Your task to perform on an android device: check android version Image 0: 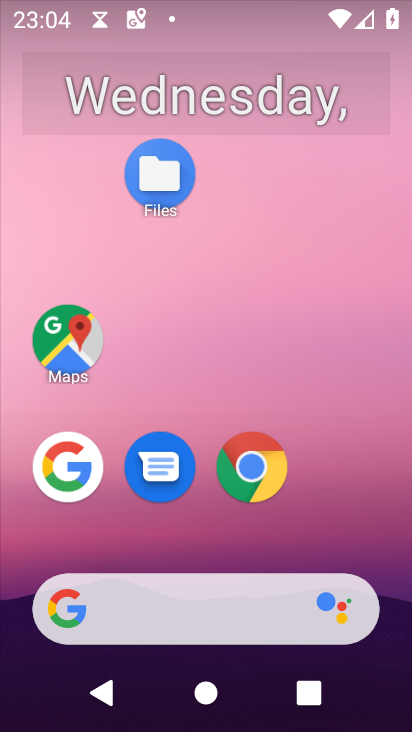
Step 0: drag from (185, 562) to (218, 104)
Your task to perform on an android device: check android version Image 1: 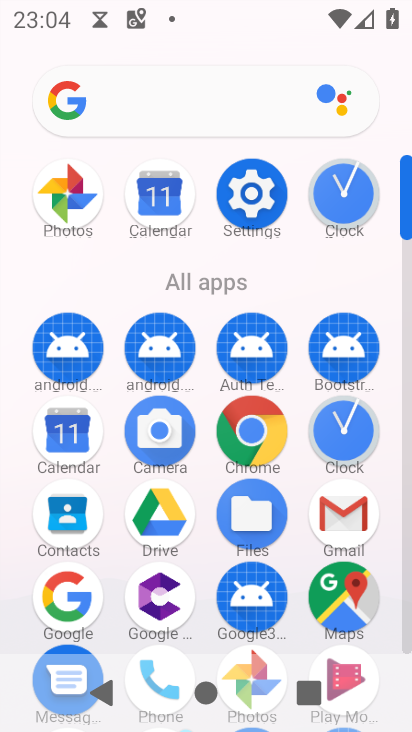
Step 1: click (279, 200)
Your task to perform on an android device: check android version Image 2: 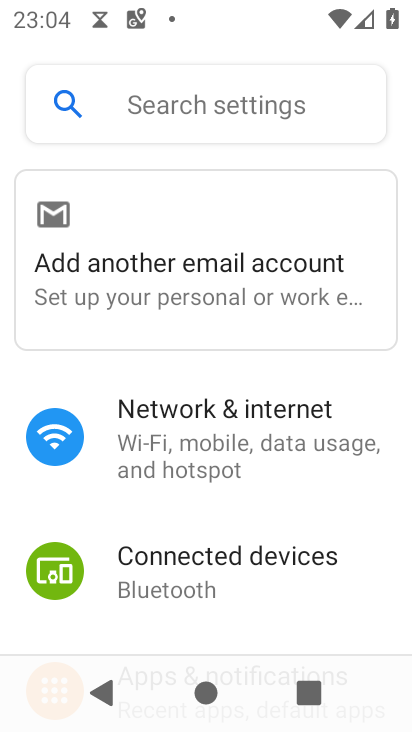
Step 2: drag from (178, 559) to (183, 14)
Your task to perform on an android device: check android version Image 3: 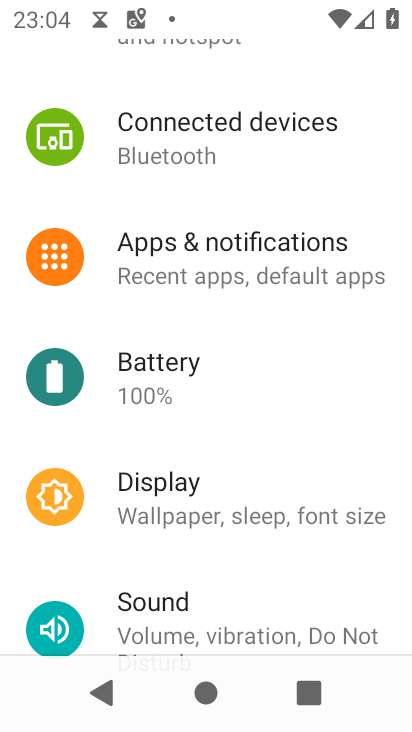
Step 3: drag from (261, 463) to (275, 28)
Your task to perform on an android device: check android version Image 4: 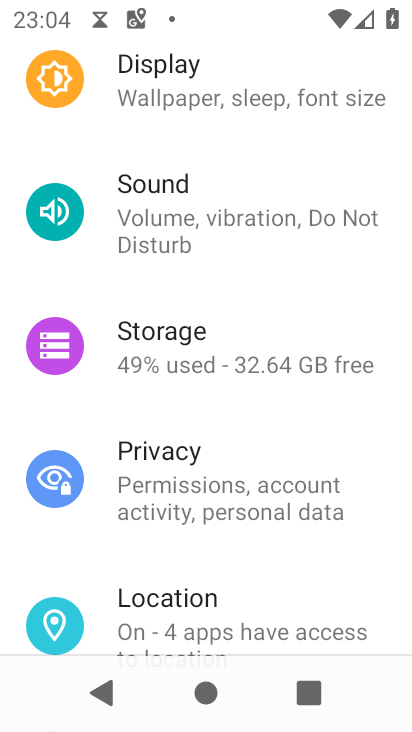
Step 4: drag from (278, 478) to (279, 191)
Your task to perform on an android device: check android version Image 5: 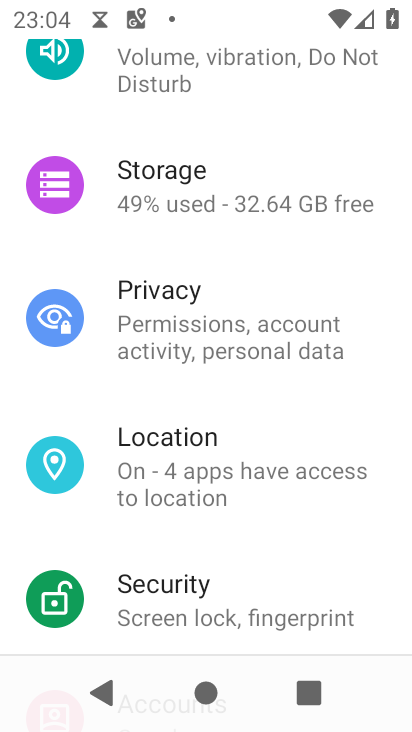
Step 5: click (279, 191)
Your task to perform on an android device: check android version Image 6: 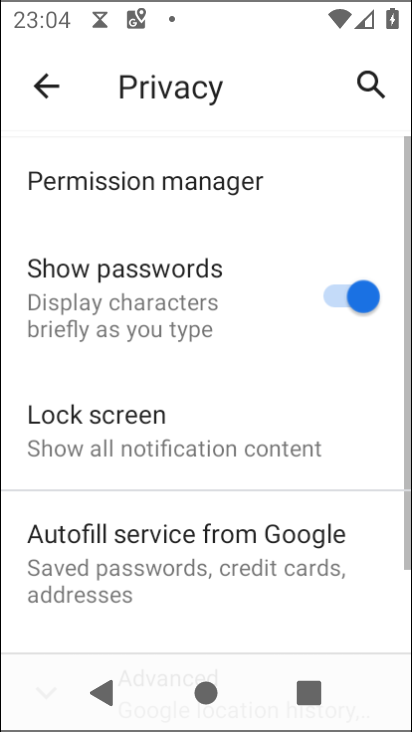
Step 6: drag from (274, 570) to (263, 359)
Your task to perform on an android device: check android version Image 7: 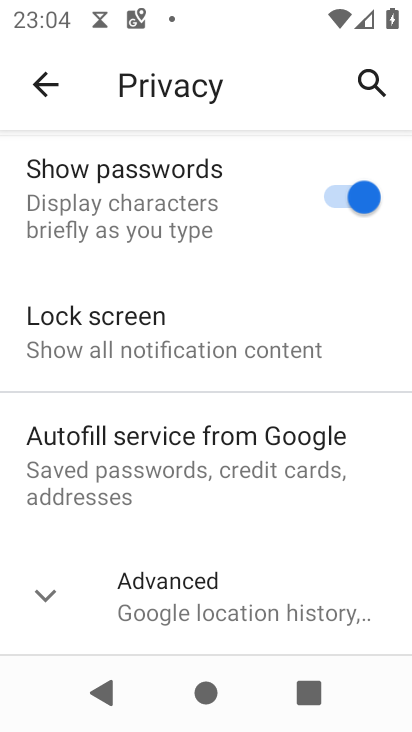
Step 7: click (34, 69)
Your task to perform on an android device: check android version Image 8: 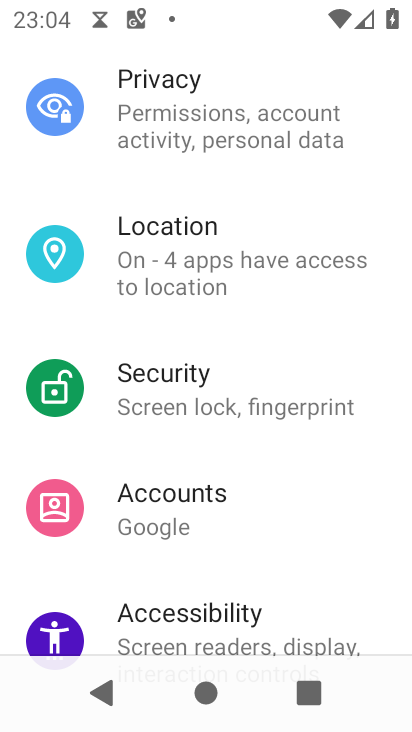
Step 8: drag from (270, 535) to (269, 168)
Your task to perform on an android device: check android version Image 9: 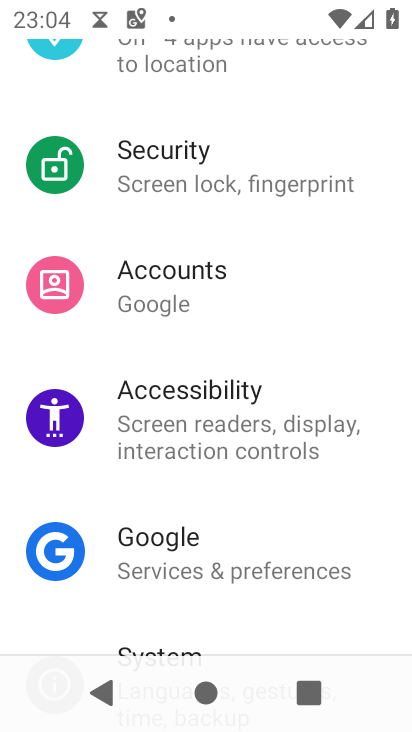
Step 9: drag from (214, 472) to (179, 159)
Your task to perform on an android device: check android version Image 10: 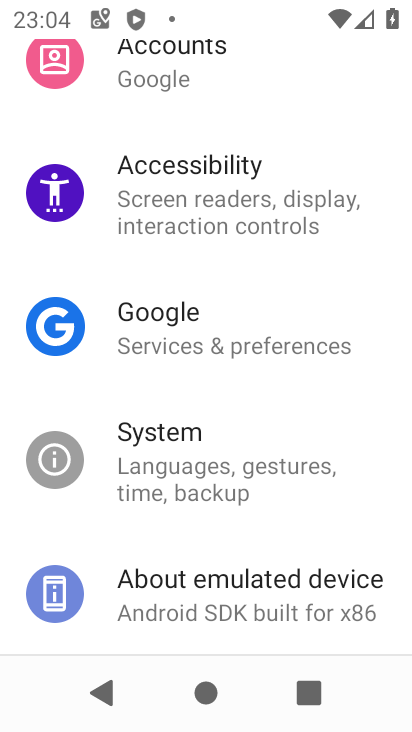
Step 10: click (273, 570)
Your task to perform on an android device: check android version Image 11: 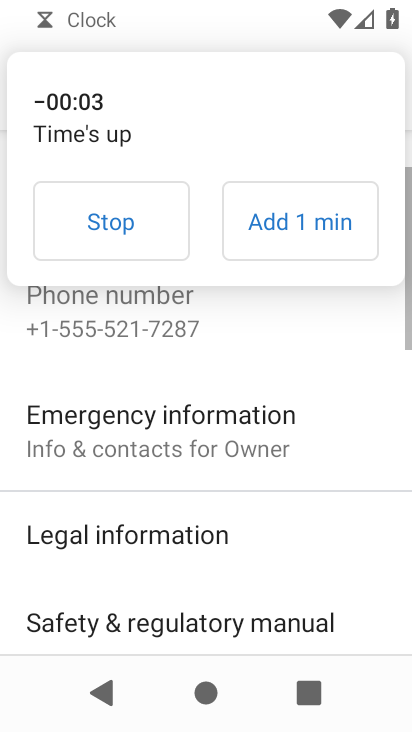
Step 11: click (132, 241)
Your task to perform on an android device: check android version Image 12: 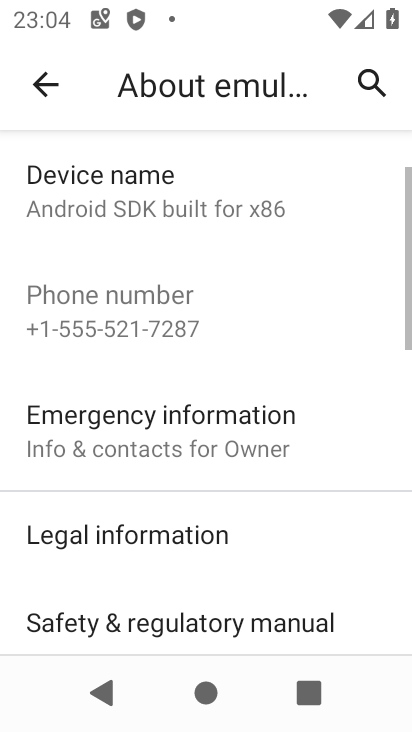
Step 12: drag from (178, 493) to (152, 157)
Your task to perform on an android device: check android version Image 13: 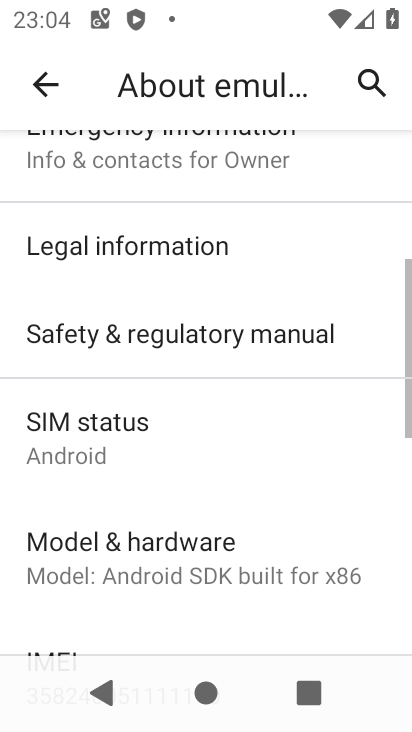
Step 13: drag from (147, 543) to (119, 221)
Your task to perform on an android device: check android version Image 14: 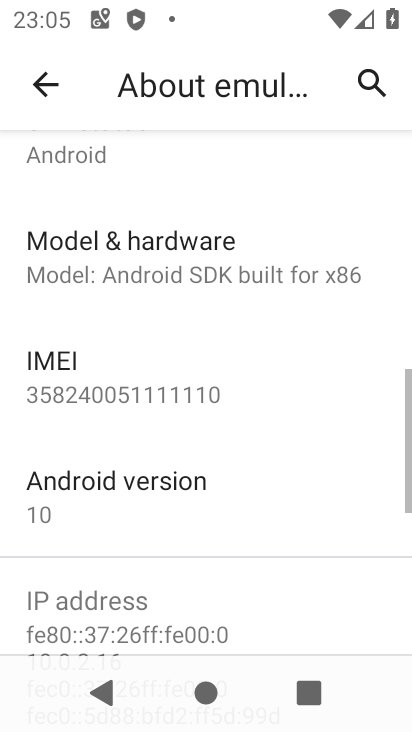
Step 14: click (145, 496)
Your task to perform on an android device: check android version Image 15: 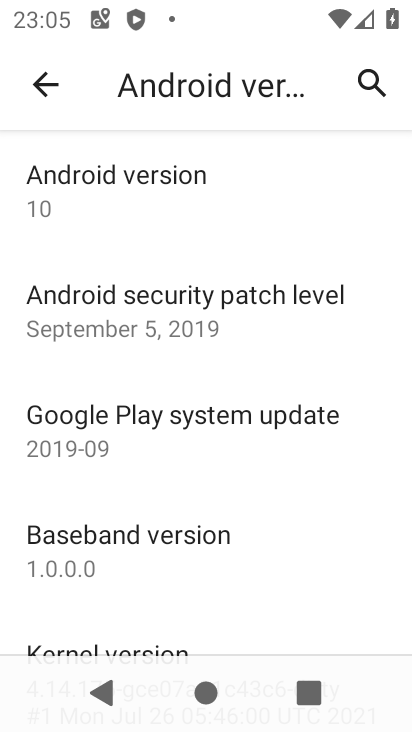
Step 15: click (251, 180)
Your task to perform on an android device: check android version Image 16: 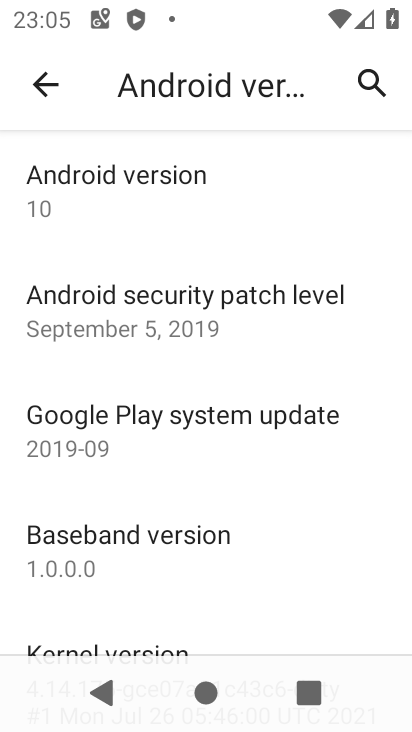
Step 16: task complete